Your task to perform on an android device: Search for seafood restaurants on Google Maps Image 0: 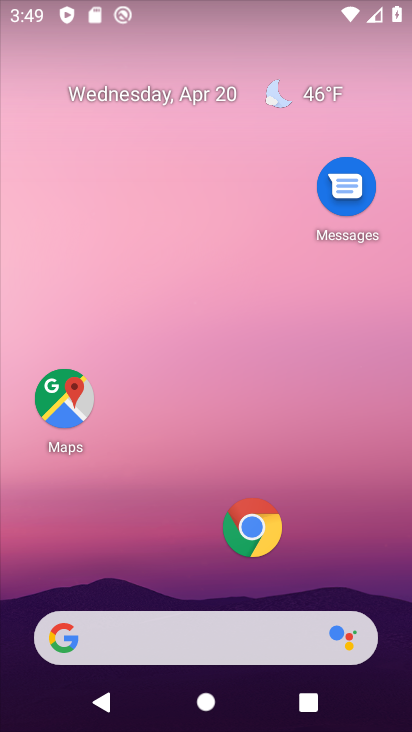
Step 0: drag from (188, 645) to (355, 144)
Your task to perform on an android device: Search for seafood restaurants on Google Maps Image 1: 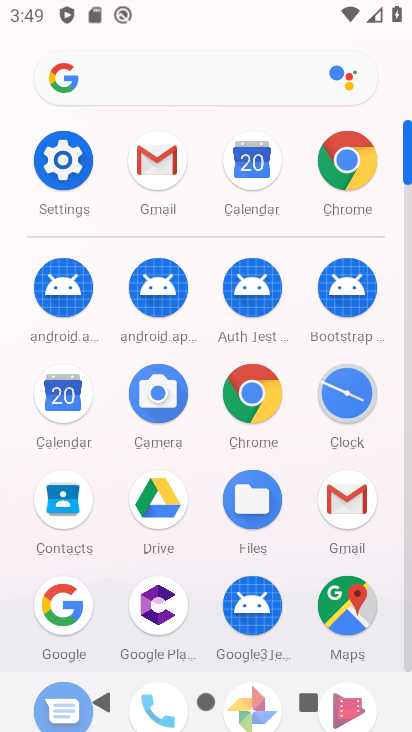
Step 1: click (342, 619)
Your task to perform on an android device: Search for seafood restaurants on Google Maps Image 2: 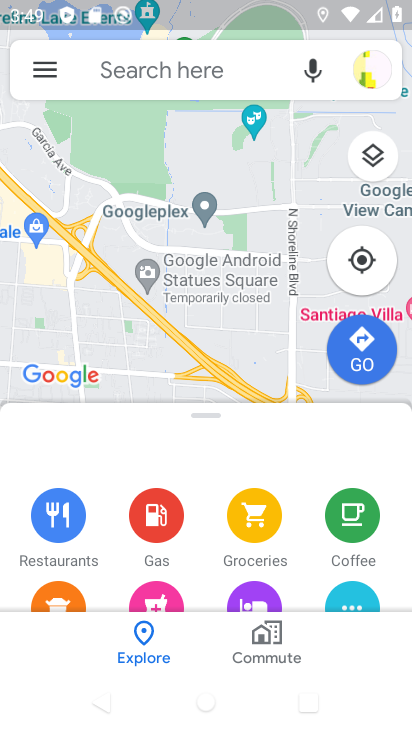
Step 2: click (161, 75)
Your task to perform on an android device: Search for seafood restaurants on Google Maps Image 3: 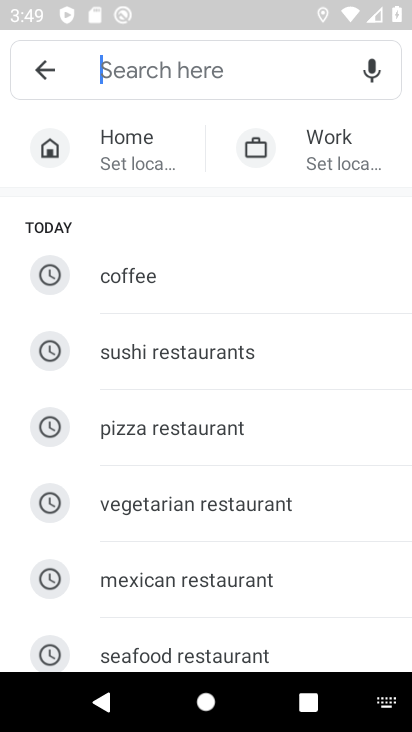
Step 3: click (166, 657)
Your task to perform on an android device: Search for seafood restaurants on Google Maps Image 4: 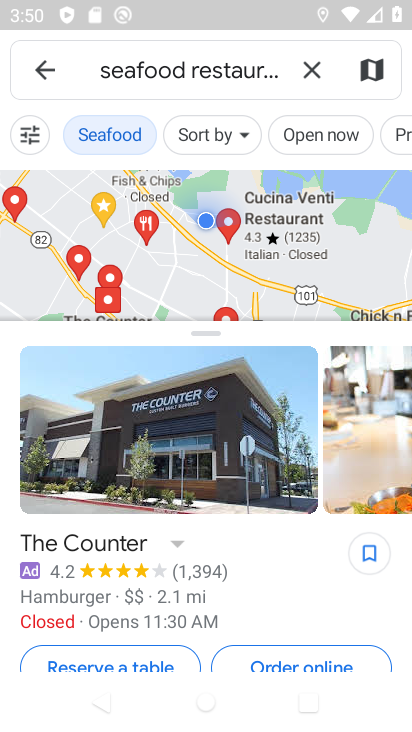
Step 4: task complete